Your task to perform on an android device: Open Yahoo.com Image 0: 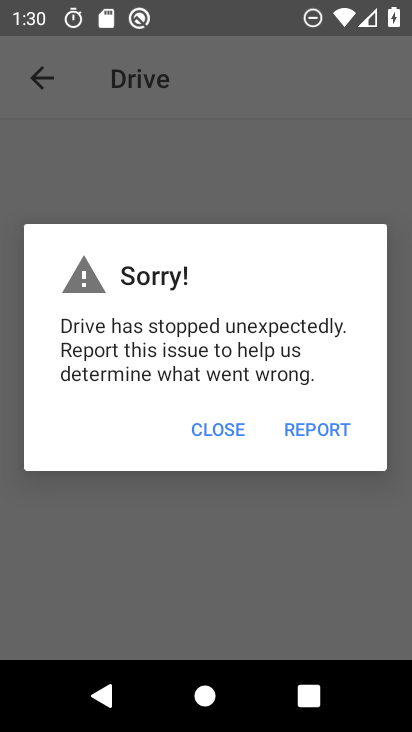
Step 0: click (232, 433)
Your task to perform on an android device: Open Yahoo.com Image 1: 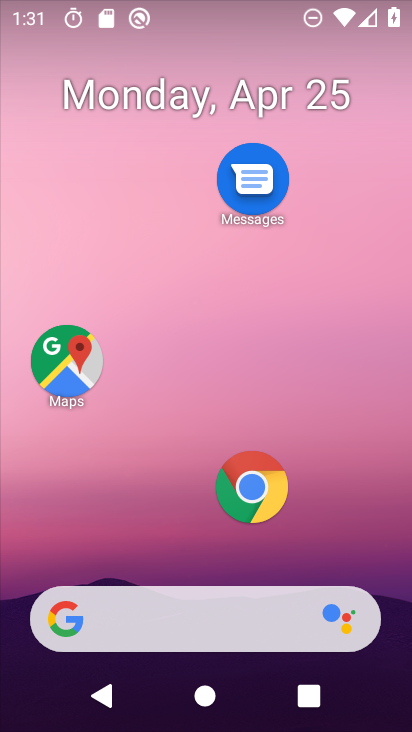
Step 1: drag from (208, 639) to (217, 238)
Your task to perform on an android device: Open Yahoo.com Image 2: 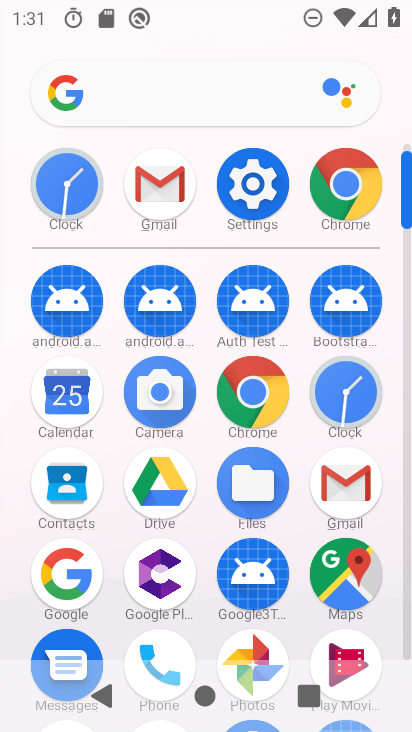
Step 2: click (258, 384)
Your task to perform on an android device: Open Yahoo.com Image 3: 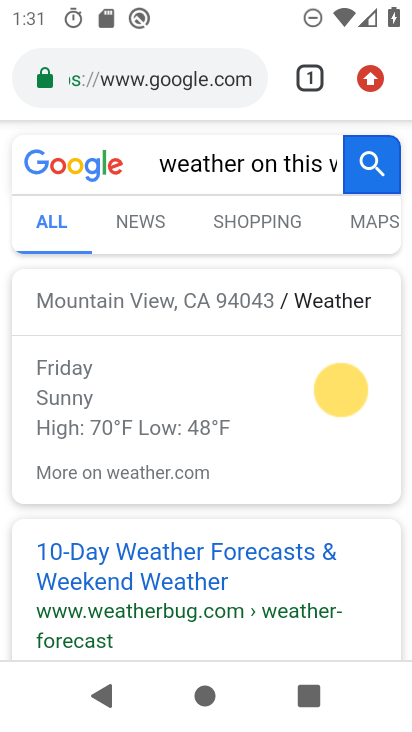
Step 3: click (311, 82)
Your task to perform on an android device: Open Yahoo.com Image 4: 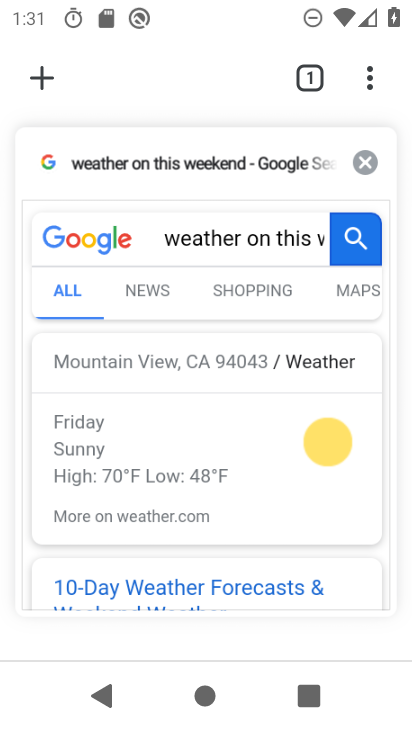
Step 4: drag from (224, 612) to (242, 213)
Your task to perform on an android device: Open Yahoo.com Image 5: 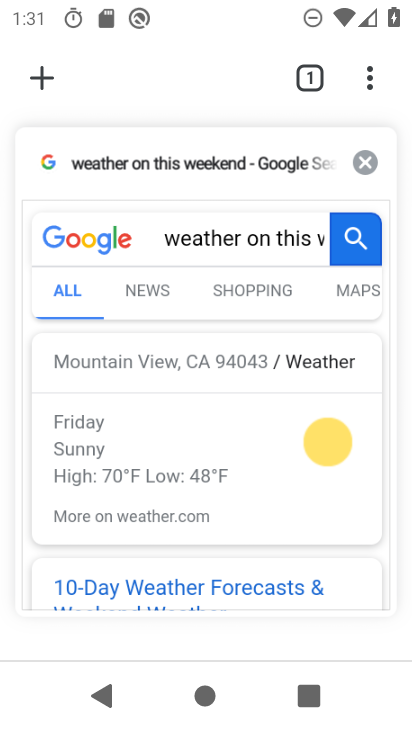
Step 5: drag from (233, 569) to (289, 95)
Your task to perform on an android device: Open Yahoo.com Image 6: 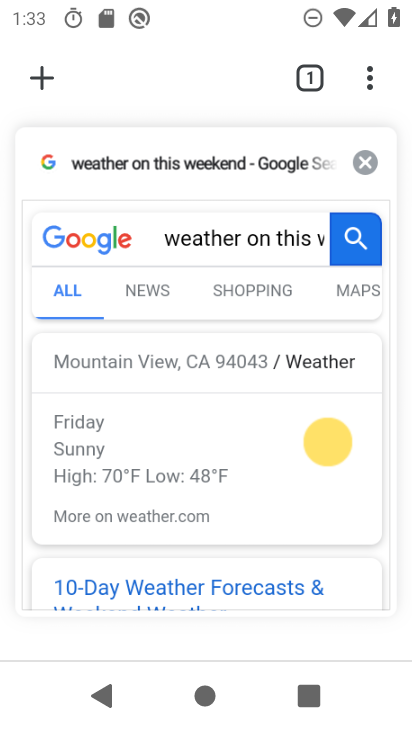
Step 6: click (361, 78)
Your task to perform on an android device: Open Yahoo.com Image 7: 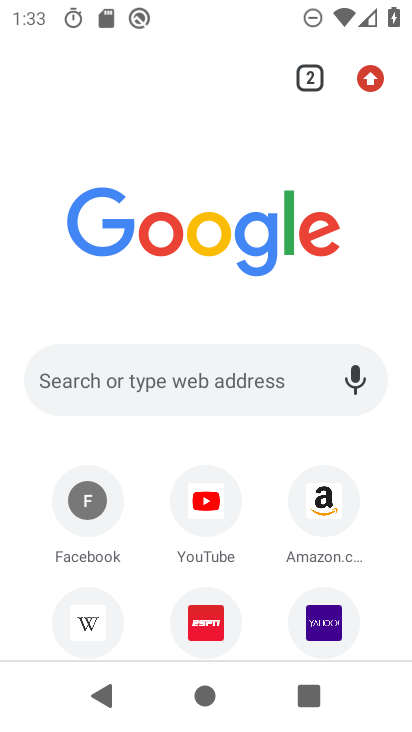
Step 7: drag from (374, 82) to (171, 260)
Your task to perform on an android device: Open Yahoo.com Image 8: 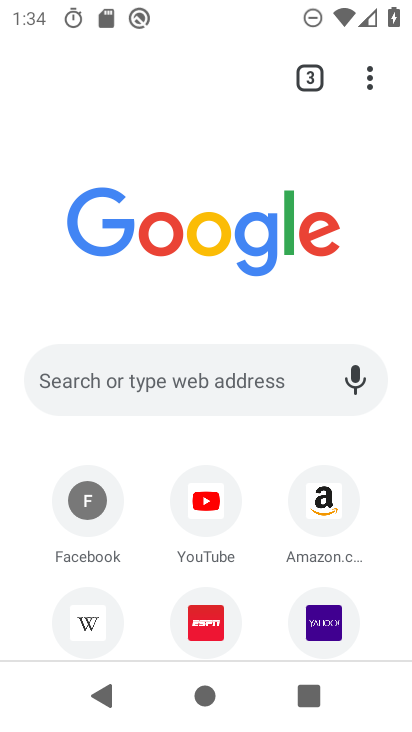
Step 8: drag from (284, 575) to (331, 147)
Your task to perform on an android device: Open Yahoo.com Image 9: 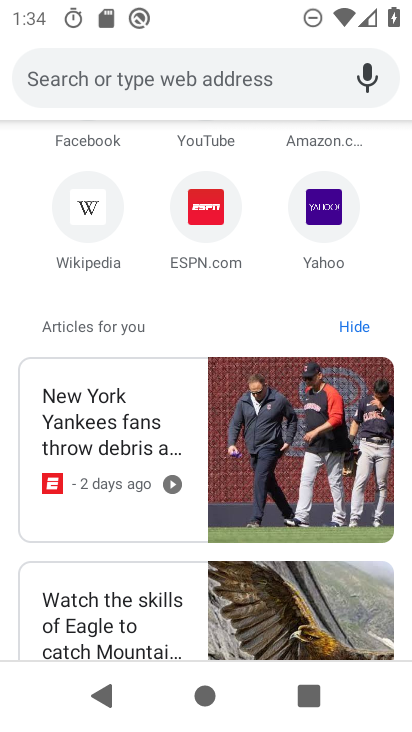
Step 9: click (309, 225)
Your task to perform on an android device: Open Yahoo.com Image 10: 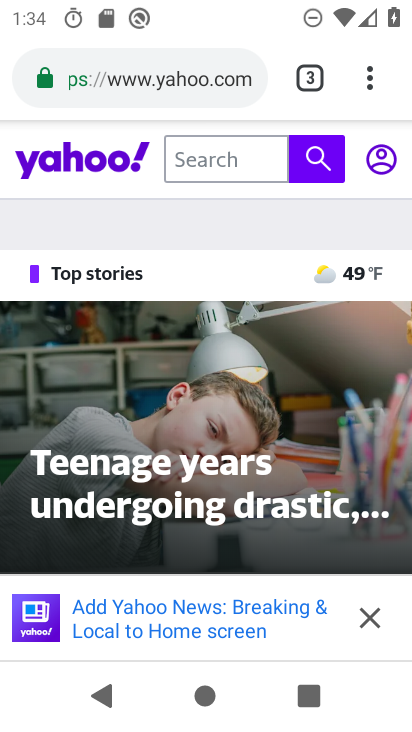
Step 10: task complete